Your task to perform on an android device: see sites visited before in the chrome app Image 0: 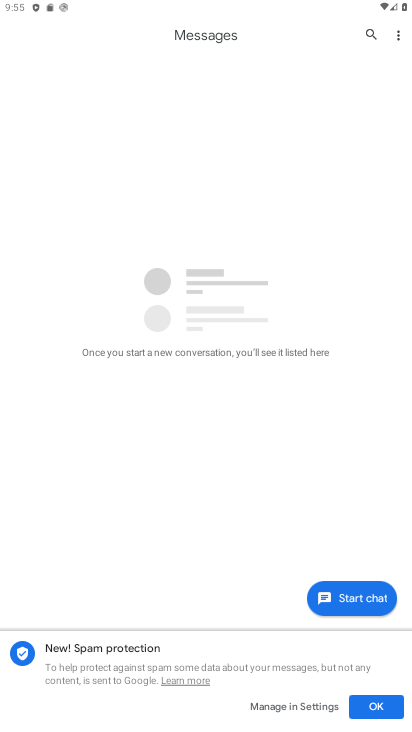
Step 0: click (212, 657)
Your task to perform on an android device: see sites visited before in the chrome app Image 1: 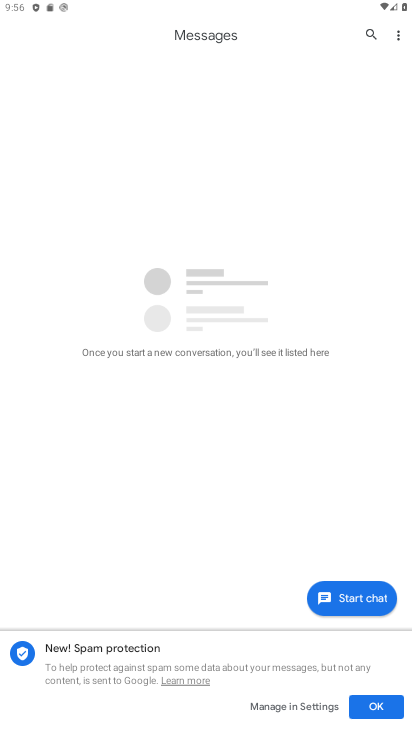
Step 1: press home button
Your task to perform on an android device: see sites visited before in the chrome app Image 2: 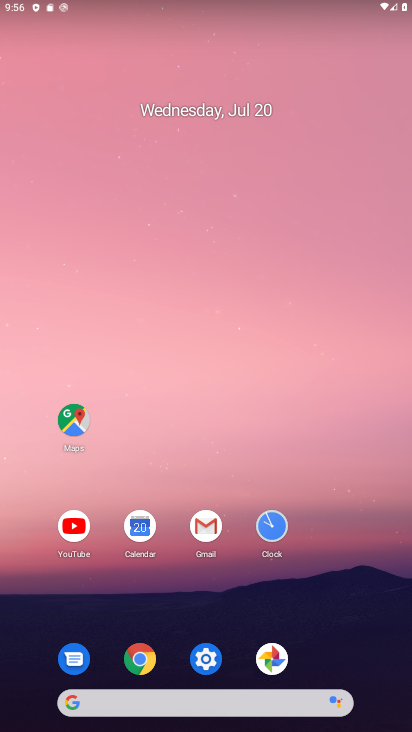
Step 2: click (139, 649)
Your task to perform on an android device: see sites visited before in the chrome app Image 3: 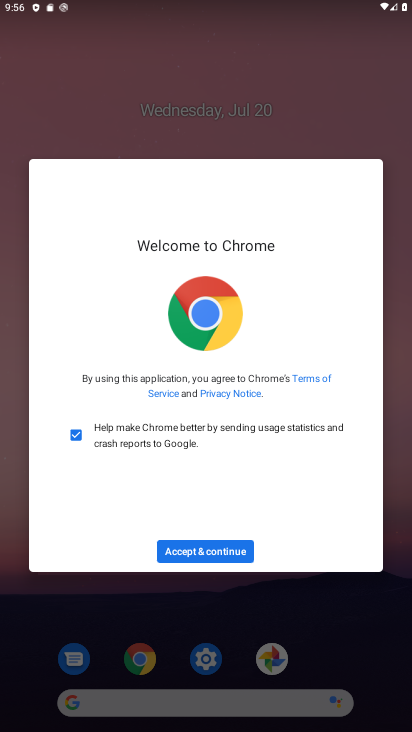
Step 3: click (214, 546)
Your task to perform on an android device: see sites visited before in the chrome app Image 4: 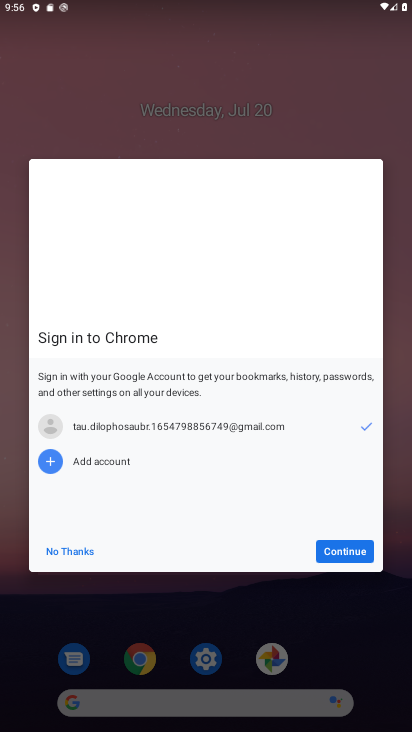
Step 4: click (340, 545)
Your task to perform on an android device: see sites visited before in the chrome app Image 5: 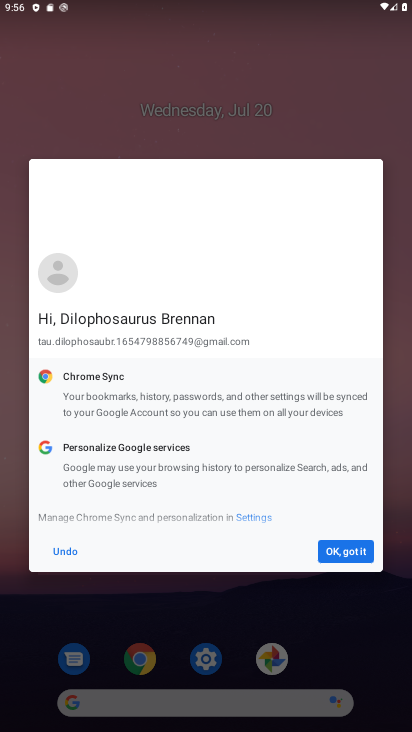
Step 5: click (341, 556)
Your task to perform on an android device: see sites visited before in the chrome app Image 6: 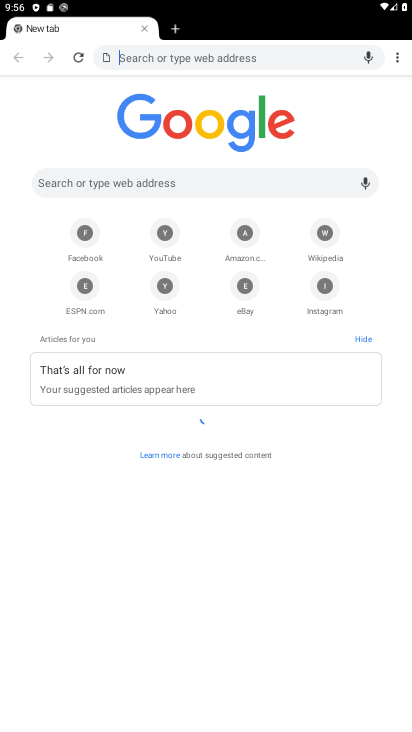
Step 6: click (396, 60)
Your task to perform on an android device: see sites visited before in the chrome app Image 7: 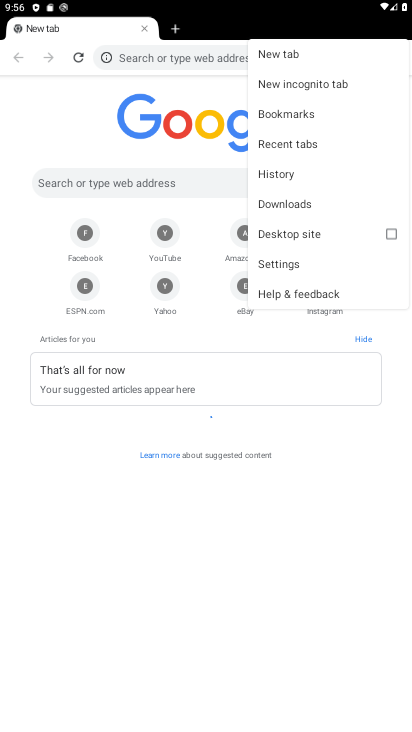
Step 7: click (276, 170)
Your task to perform on an android device: see sites visited before in the chrome app Image 8: 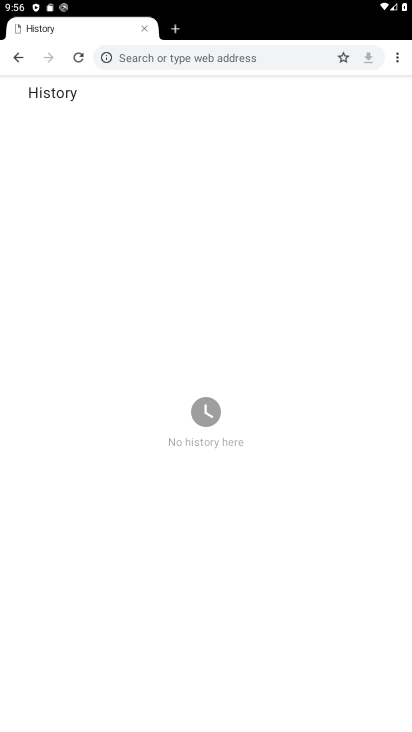
Step 8: task complete